Your task to perform on an android device: find which apps use the phone's location Image 0: 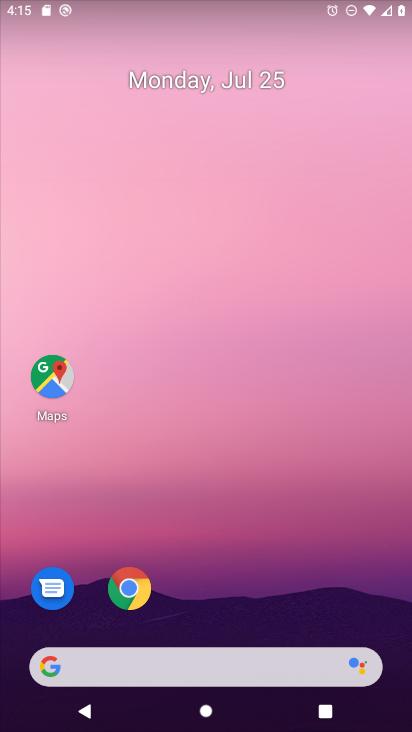
Step 0: drag from (233, 723) to (237, 36)
Your task to perform on an android device: find which apps use the phone's location Image 1: 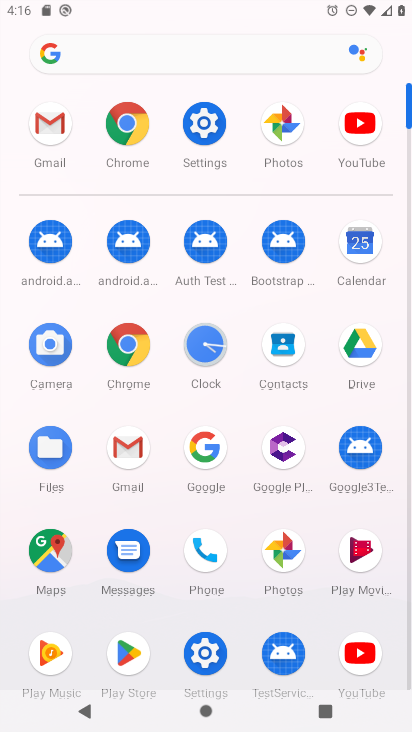
Step 1: click (204, 127)
Your task to perform on an android device: find which apps use the phone's location Image 2: 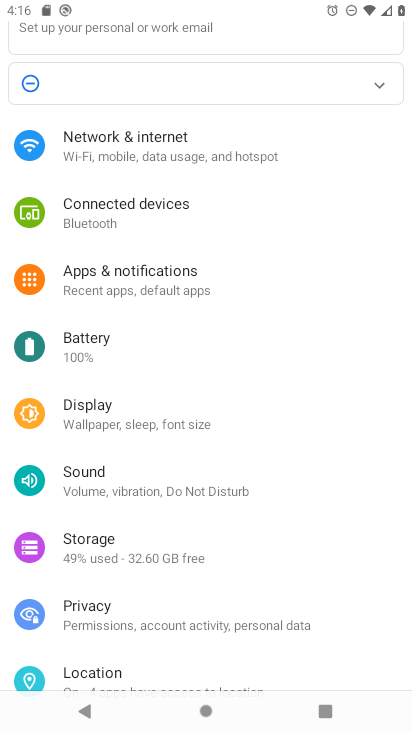
Step 2: click (87, 672)
Your task to perform on an android device: find which apps use the phone's location Image 3: 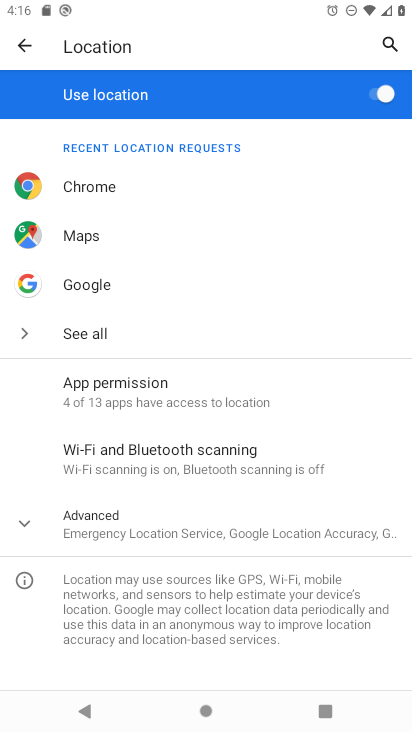
Step 3: click (123, 380)
Your task to perform on an android device: find which apps use the phone's location Image 4: 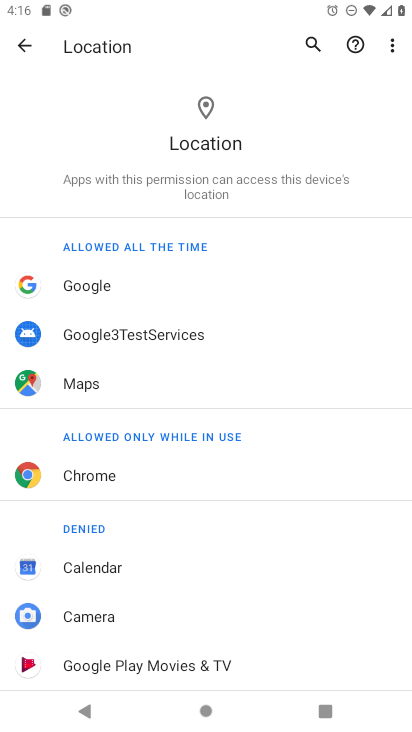
Step 4: task complete